Your task to perform on an android device: turn on improve location accuracy Image 0: 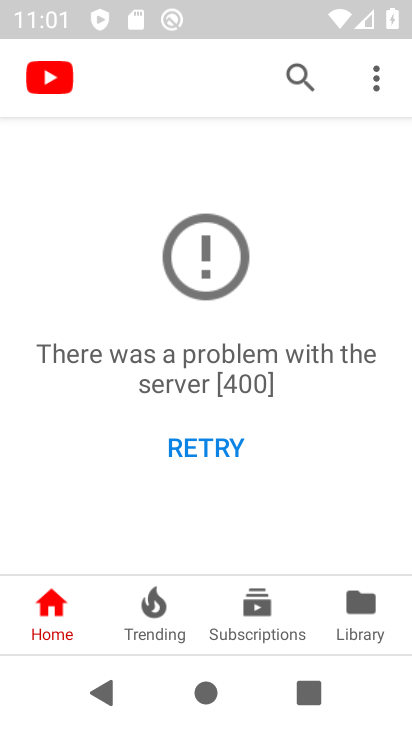
Step 0: press home button
Your task to perform on an android device: turn on improve location accuracy Image 1: 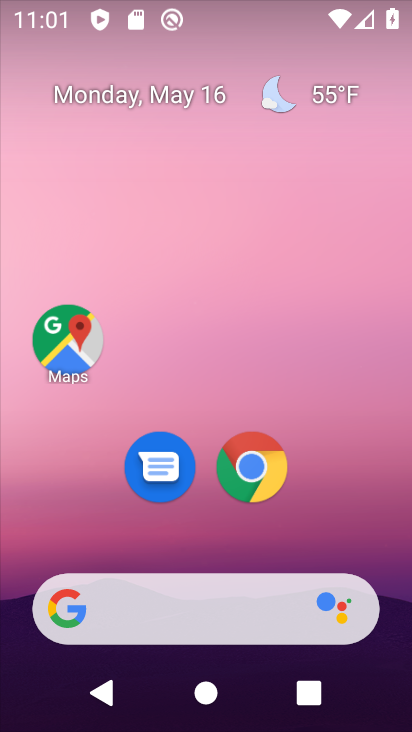
Step 1: drag from (202, 556) to (208, 43)
Your task to perform on an android device: turn on improve location accuracy Image 2: 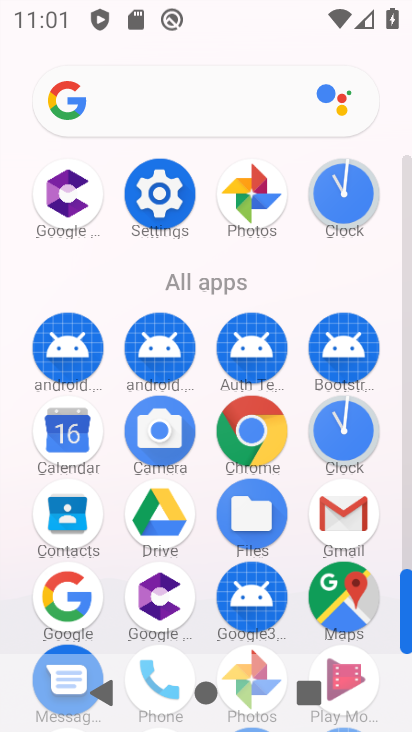
Step 2: click (165, 214)
Your task to perform on an android device: turn on improve location accuracy Image 3: 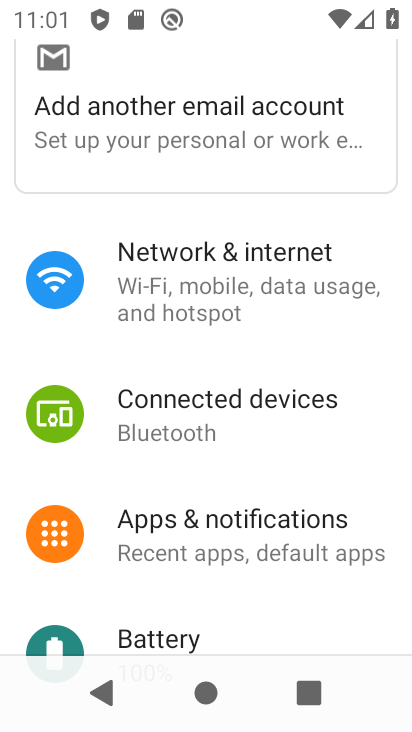
Step 3: drag from (216, 538) to (286, 91)
Your task to perform on an android device: turn on improve location accuracy Image 4: 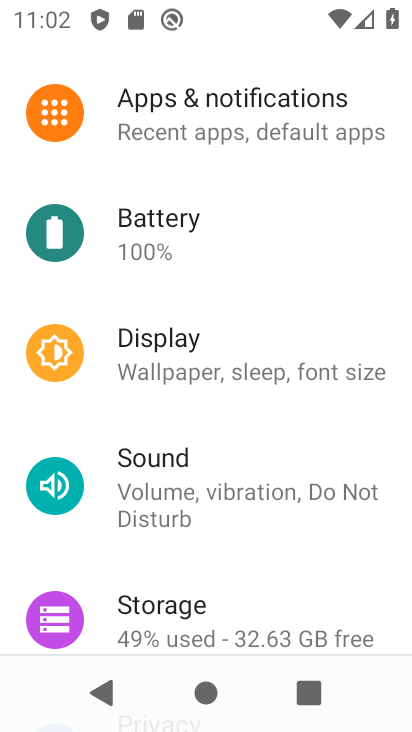
Step 4: drag from (268, 497) to (297, 72)
Your task to perform on an android device: turn on improve location accuracy Image 5: 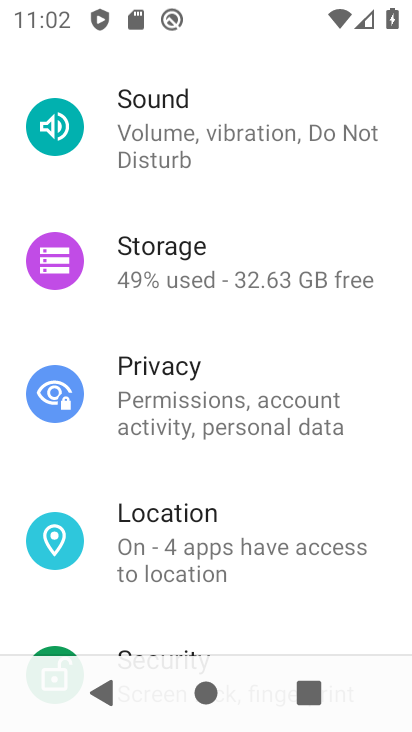
Step 5: click (199, 536)
Your task to perform on an android device: turn on improve location accuracy Image 6: 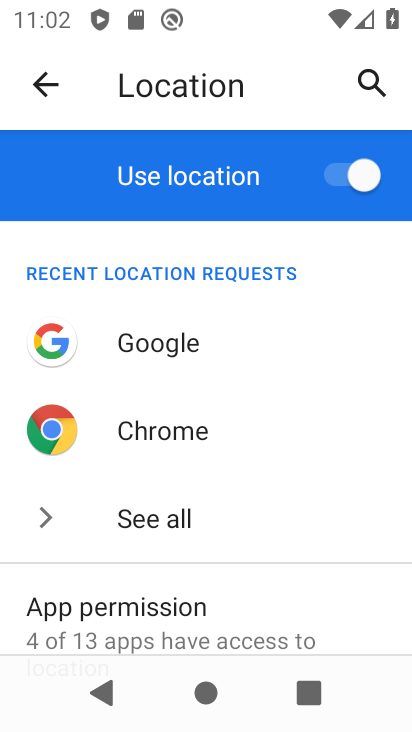
Step 6: drag from (199, 590) to (246, 282)
Your task to perform on an android device: turn on improve location accuracy Image 7: 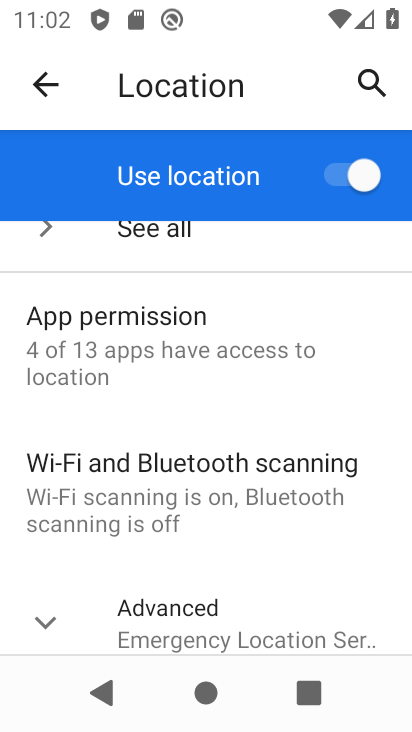
Step 7: drag from (221, 517) to (268, 358)
Your task to perform on an android device: turn on improve location accuracy Image 8: 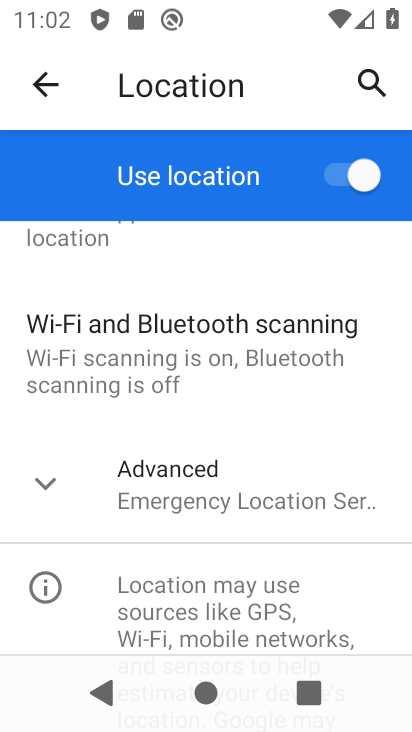
Step 8: click (187, 486)
Your task to perform on an android device: turn on improve location accuracy Image 9: 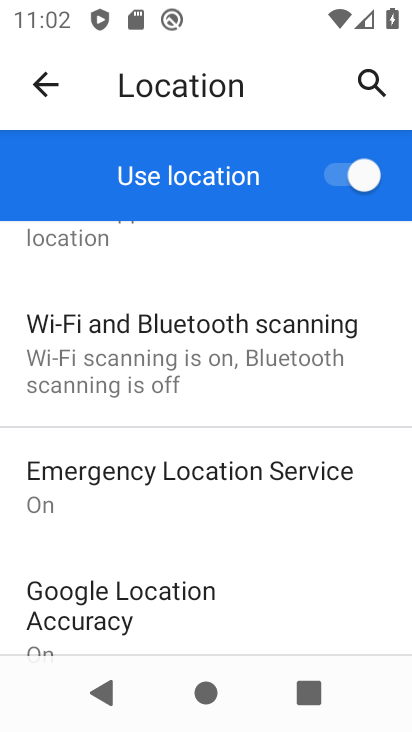
Step 9: drag from (138, 574) to (201, 354)
Your task to perform on an android device: turn on improve location accuracy Image 10: 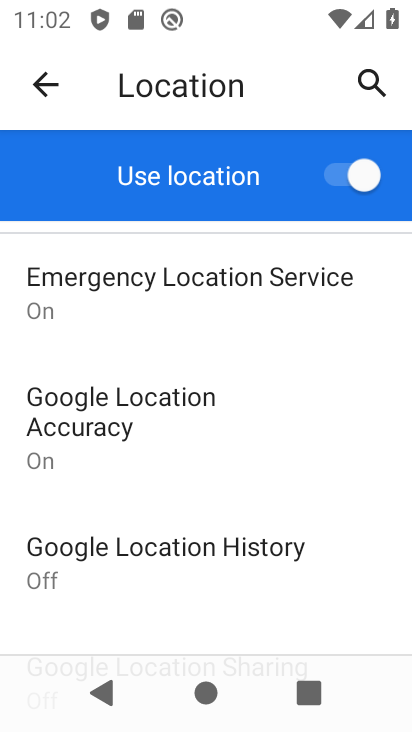
Step 10: click (140, 432)
Your task to perform on an android device: turn on improve location accuracy Image 11: 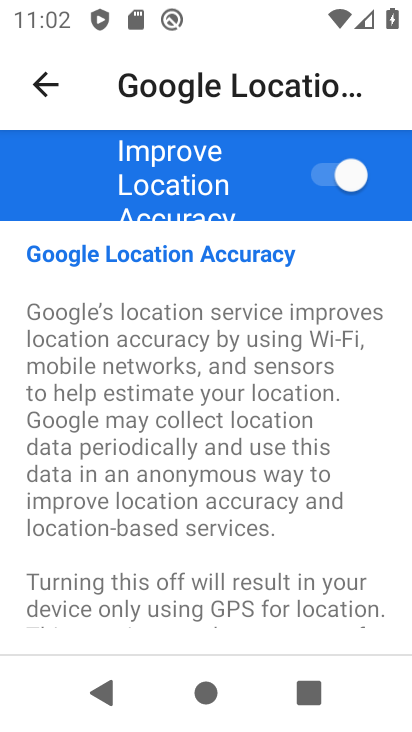
Step 11: task complete